Your task to perform on an android device: change notifications settings Image 0: 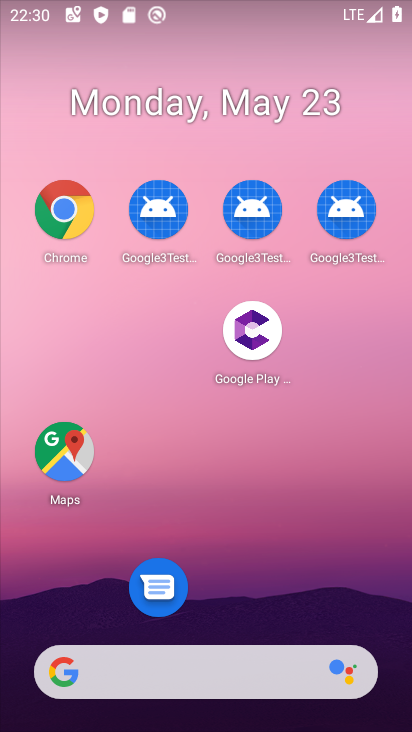
Step 0: drag from (260, 606) to (257, 77)
Your task to perform on an android device: change notifications settings Image 1: 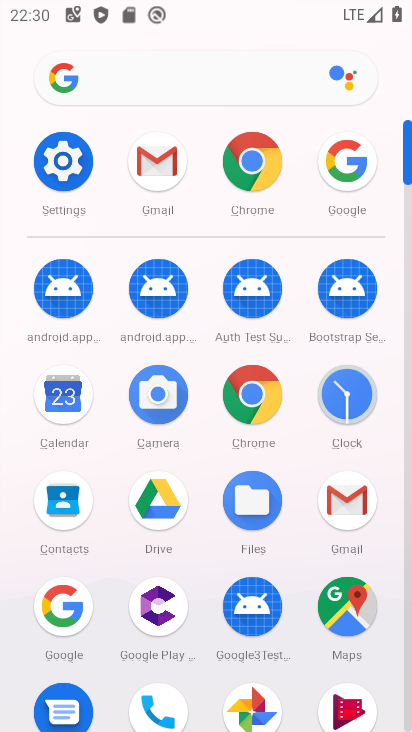
Step 1: click (43, 177)
Your task to perform on an android device: change notifications settings Image 2: 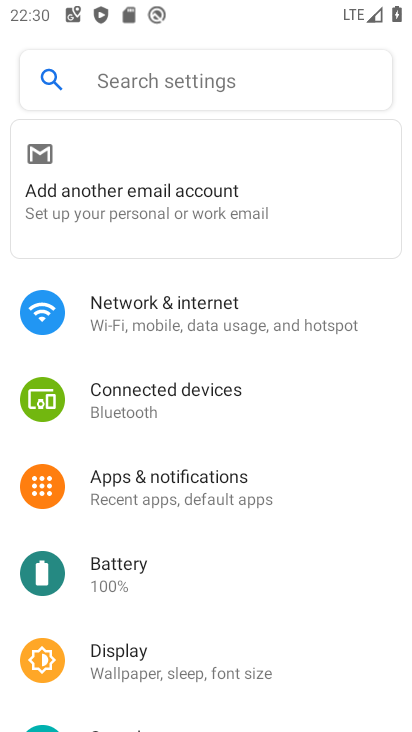
Step 2: click (154, 498)
Your task to perform on an android device: change notifications settings Image 3: 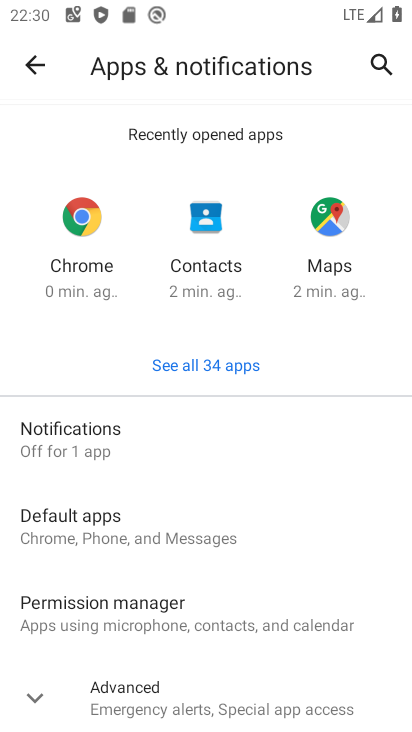
Step 3: click (88, 453)
Your task to perform on an android device: change notifications settings Image 4: 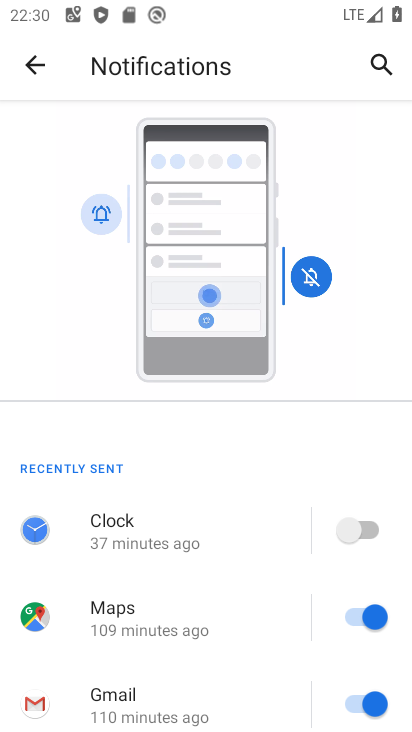
Step 4: drag from (176, 593) to (136, 218)
Your task to perform on an android device: change notifications settings Image 5: 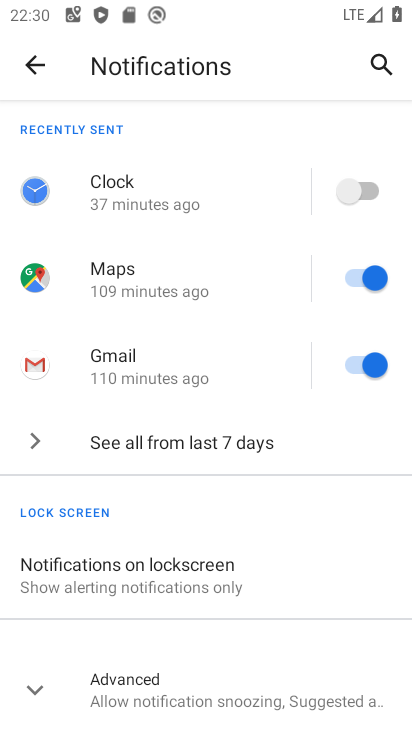
Step 5: click (193, 680)
Your task to perform on an android device: change notifications settings Image 6: 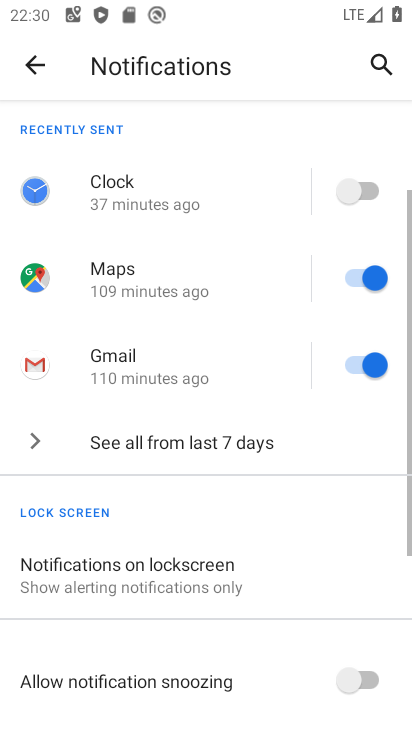
Step 6: drag from (190, 679) to (179, 355)
Your task to perform on an android device: change notifications settings Image 7: 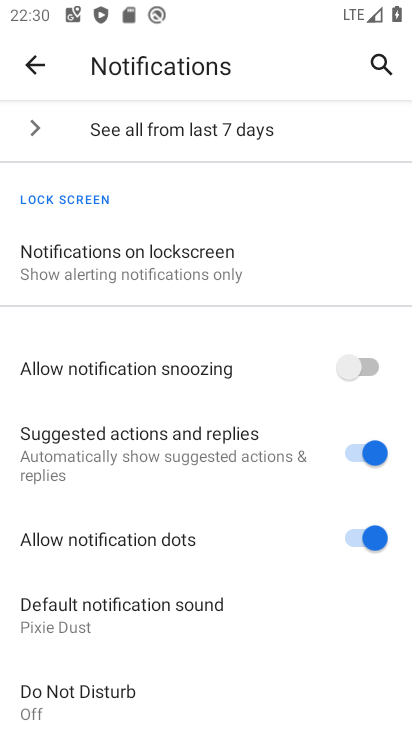
Step 7: drag from (164, 673) to (163, 365)
Your task to perform on an android device: change notifications settings Image 8: 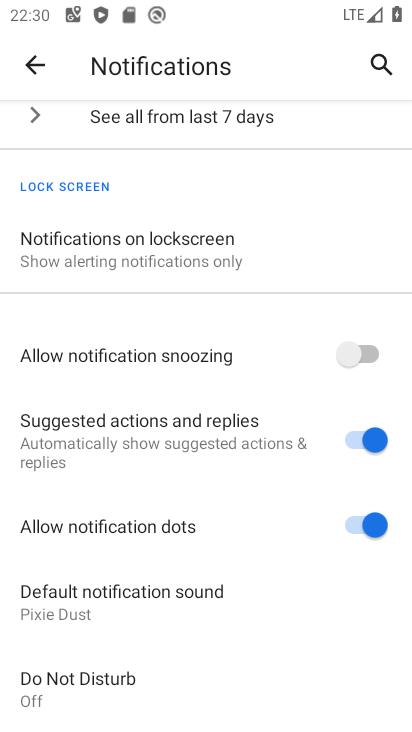
Step 8: click (190, 242)
Your task to perform on an android device: change notifications settings Image 9: 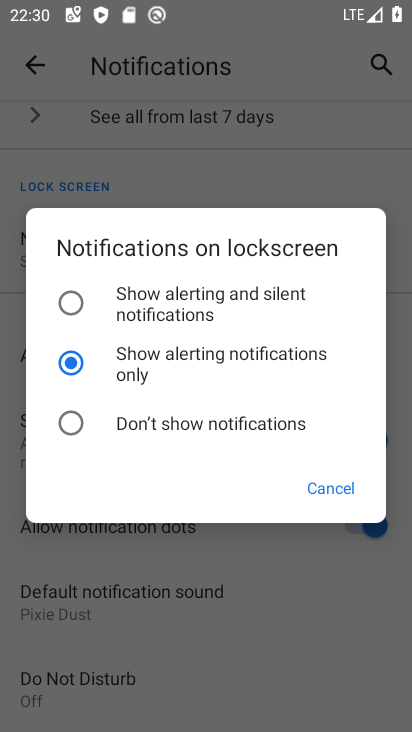
Step 9: press back button
Your task to perform on an android device: change notifications settings Image 10: 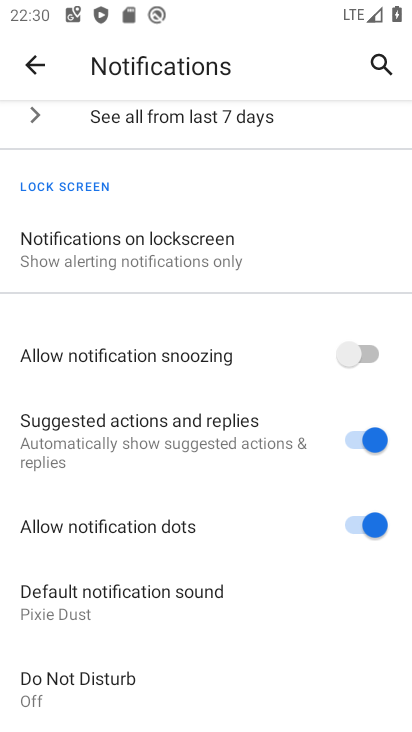
Step 10: press back button
Your task to perform on an android device: change notifications settings Image 11: 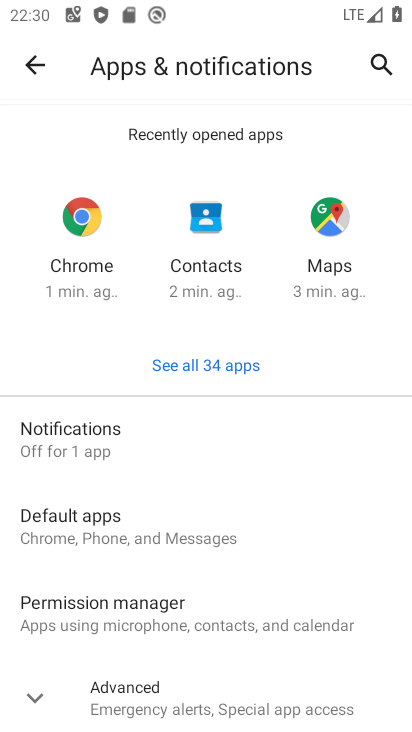
Step 11: press back button
Your task to perform on an android device: change notifications settings Image 12: 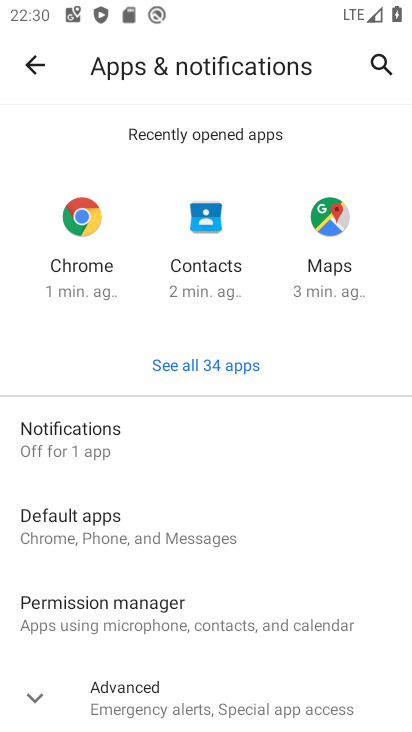
Step 12: press back button
Your task to perform on an android device: change notifications settings Image 13: 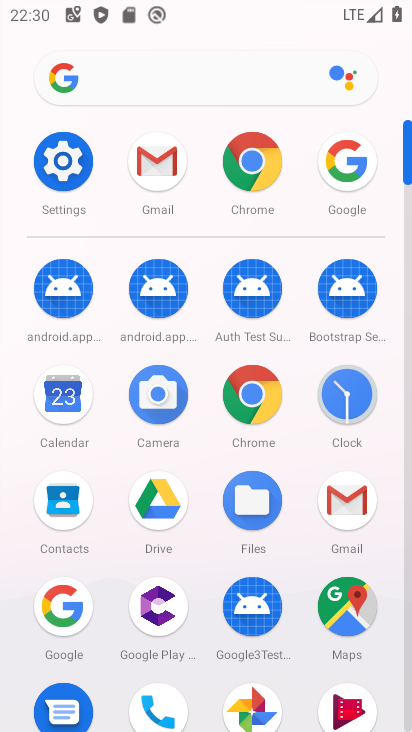
Step 13: click (66, 184)
Your task to perform on an android device: change notifications settings Image 14: 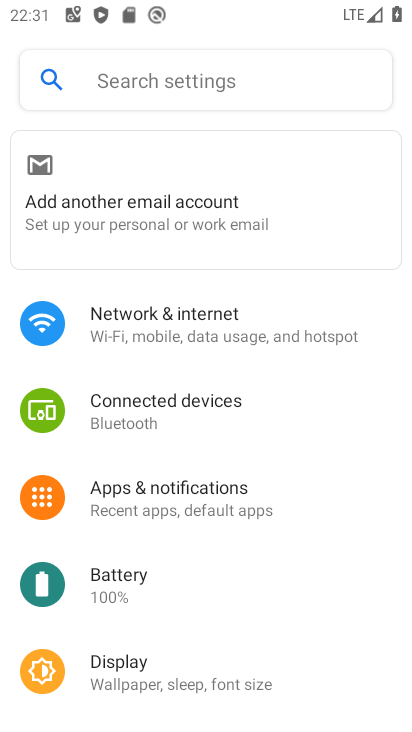
Step 14: drag from (249, 541) to (279, 171)
Your task to perform on an android device: change notifications settings Image 15: 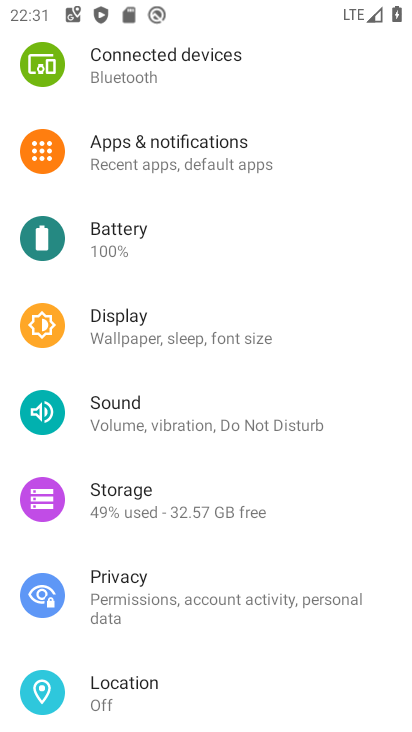
Step 15: click (126, 413)
Your task to perform on an android device: change notifications settings Image 16: 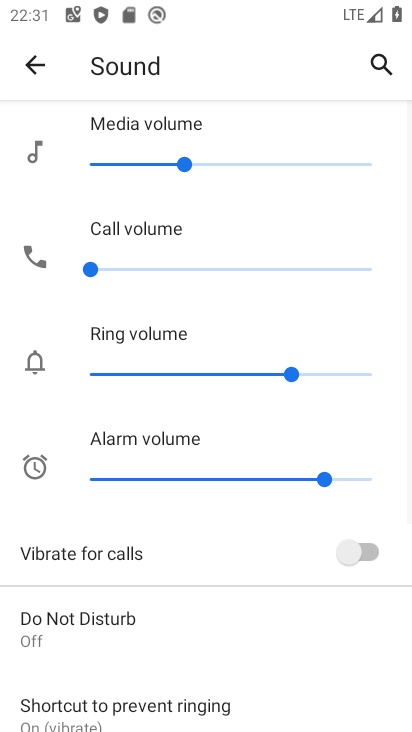
Step 16: drag from (197, 632) to (273, 201)
Your task to perform on an android device: change notifications settings Image 17: 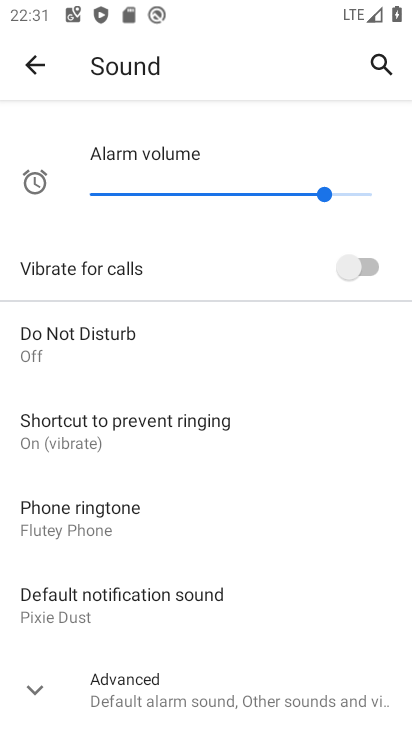
Step 17: drag from (270, 687) to (267, 323)
Your task to perform on an android device: change notifications settings Image 18: 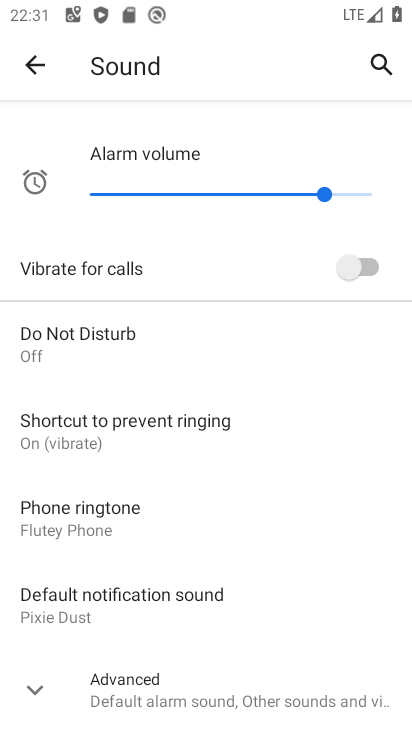
Step 18: click (275, 680)
Your task to perform on an android device: change notifications settings Image 19: 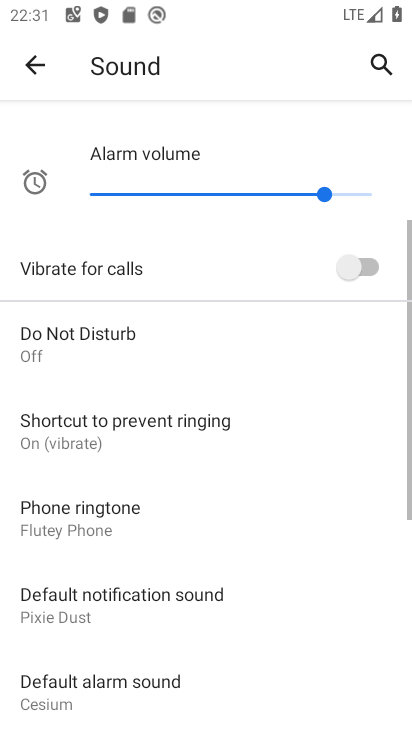
Step 19: drag from (235, 683) to (233, 180)
Your task to perform on an android device: change notifications settings Image 20: 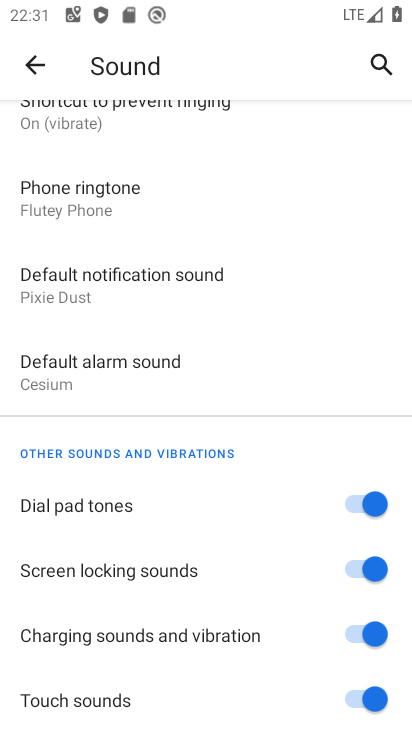
Step 20: press back button
Your task to perform on an android device: change notifications settings Image 21: 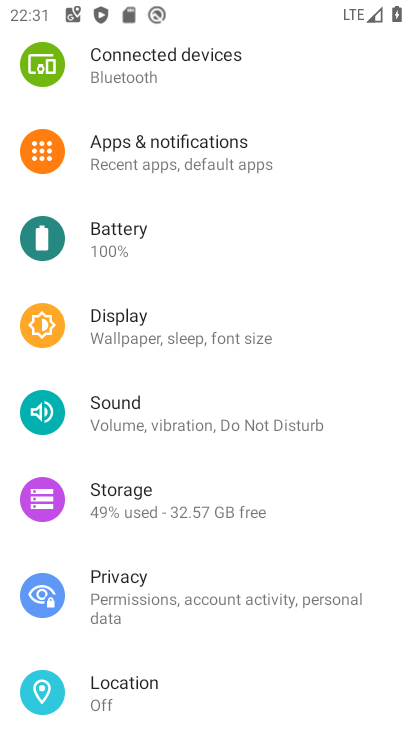
Step 21: drag from (175, 654) to (212, 268)
Your task to perform on an android device: change notifications settings Image 22: 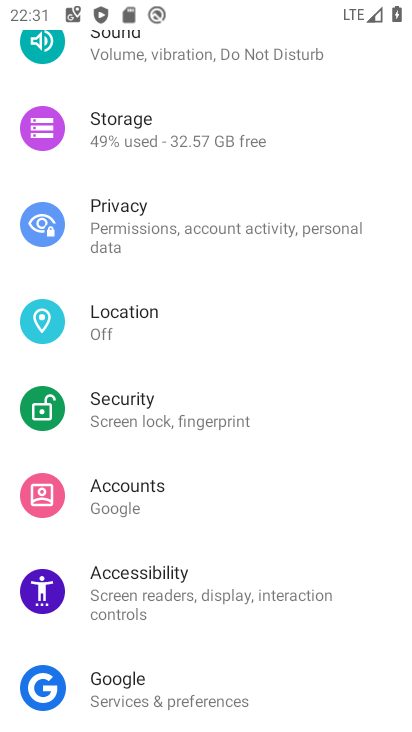
Step 22: drag from (187, 614) to (173, 237)
Your task to perform on an android device: change notifications settings Image 23: 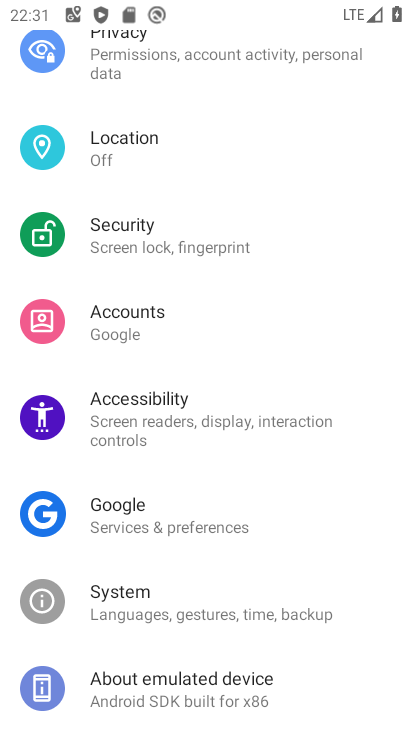
Step 23: drag from (167, 646) to (177, 325)
Your task to perform on an android device: change notifications settings Image 24: 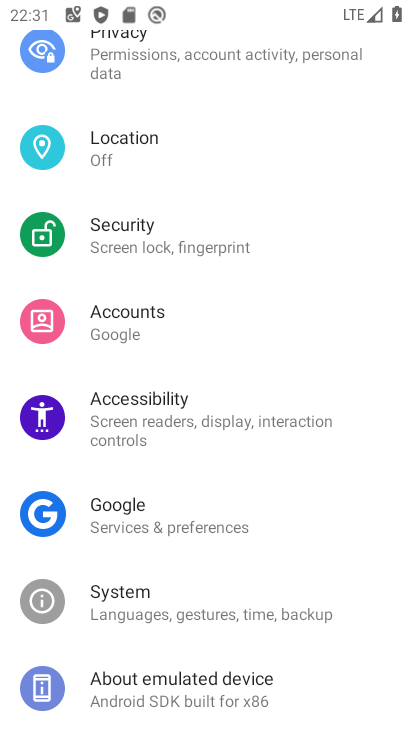
Step 24: drag from (251, 625) to (274, 459)
Your task to perform on an android device: change notifications settings Image 25: 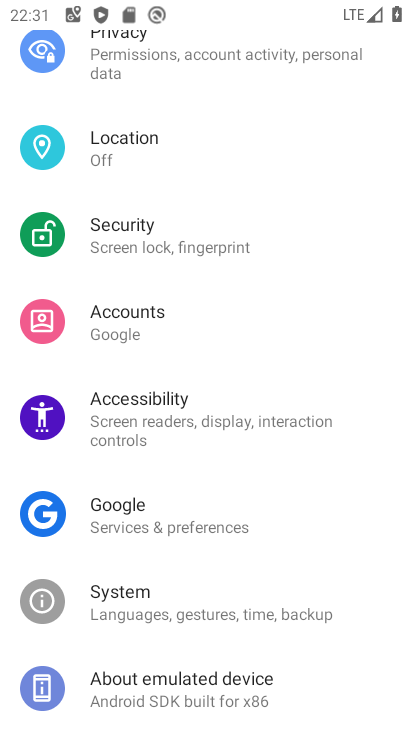
Step 25: drag from (279, 253) to (297, 637)
Your task to perform on an android device: change notifications settings Image 26: 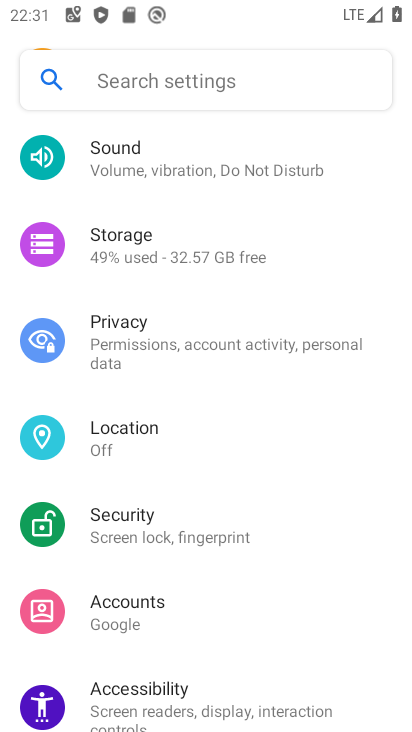
Step 26: drag from (295, 246) to (324, 611)
Your task to perform on an android device: change notifications settings Image 27: 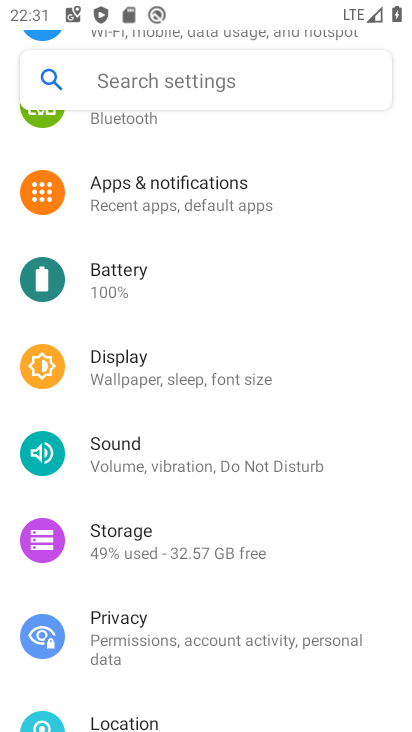
Step 27: drag from (295, 339) to (307, 477)
Your task to perform on an android device: change notifications settings Image 28: 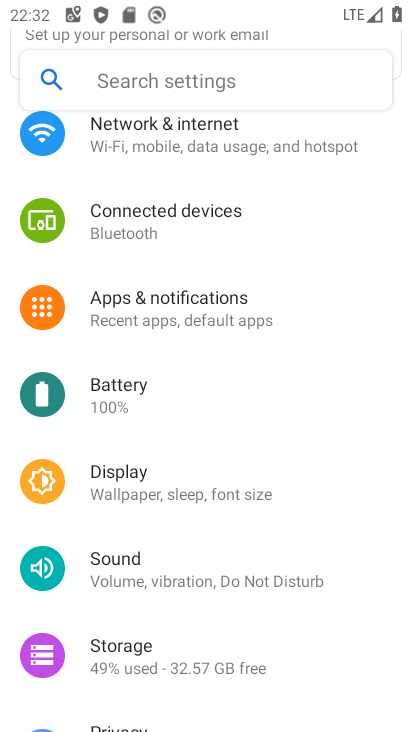
Step 28: drag from (163, 540) to (164, 387)
Your task to perform on an android device: change notifications settings Image 29: 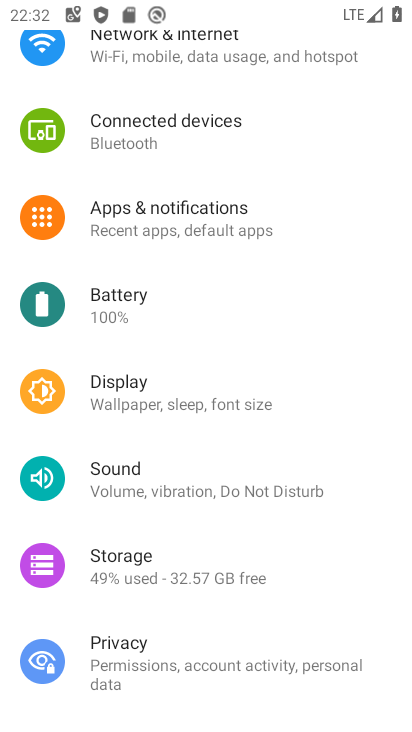
Step 29: drag from (158, 675) to (167, 396)
Your task to perform on an android device: change notifications settings Image 30: 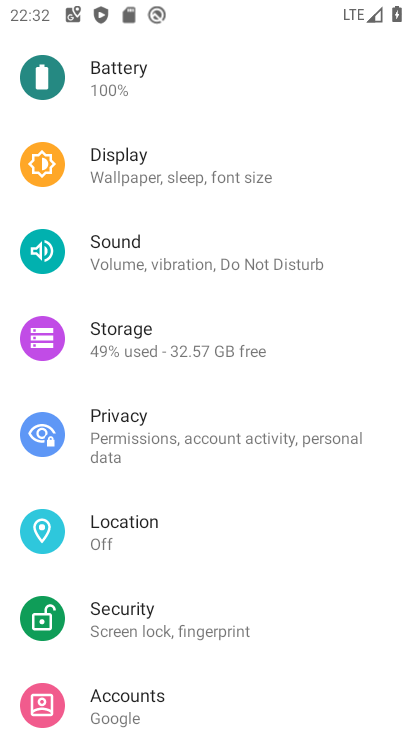
Step 30: click (186, 245)
Your task to perform on an android device: change notifications settings Image 31: 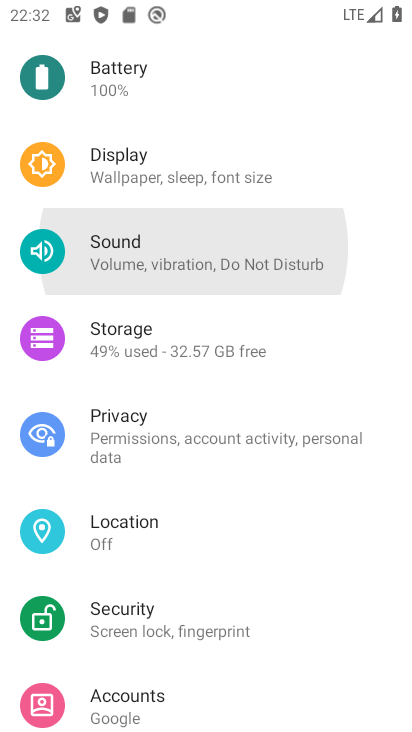
Step 31: click (186, 245)
Your task to perform on an android device: change notifications settings Image 32: 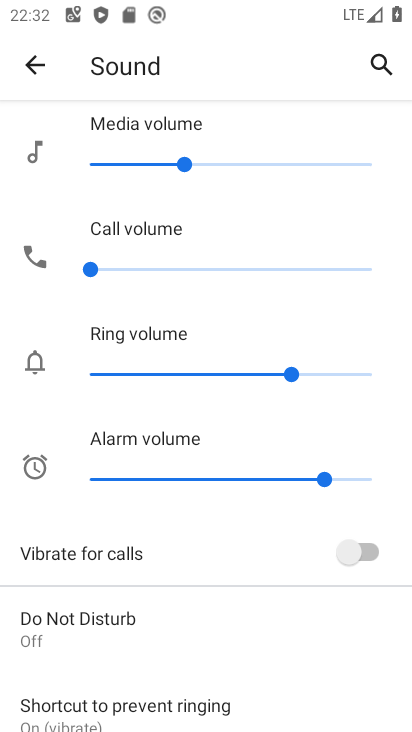
Step 32: drag from (260, 666) to (273, 297)
Your task to perform on an android device: change notifications settings Image 33: 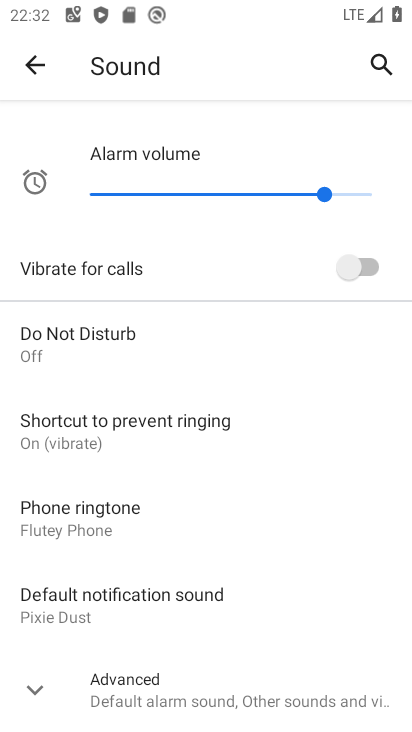
Step 33: click (153, 589)
Your task to perform on an android device: change notifications settings Image 34: 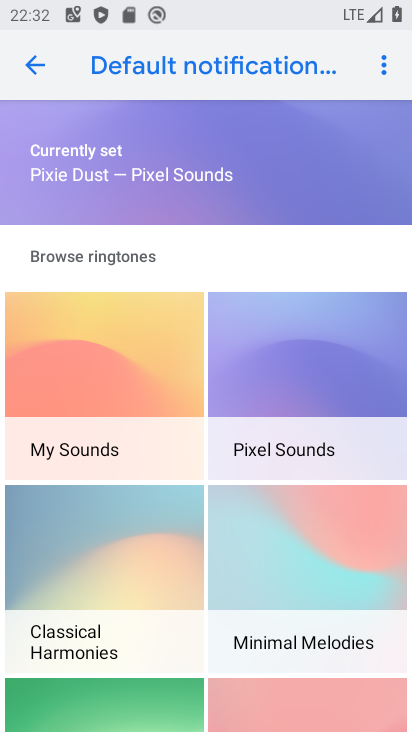
Step 34: press back button
Your task to perform on an android device: change notifications settings Image 35: 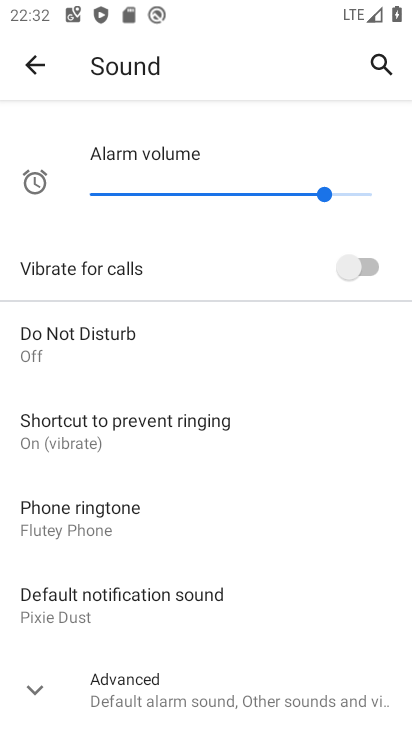
Step 35: click (240, 693)
Your task to perform on an android device: change notifications settings Image 36: 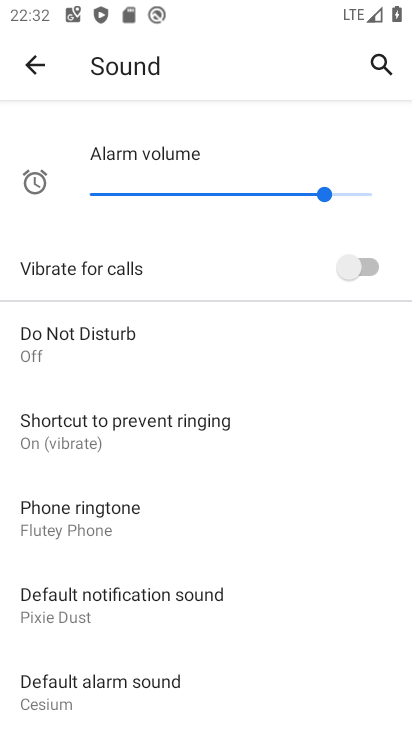
Step 36: task complete